Your task to perform on an android device: change keyboard looks Image 0: 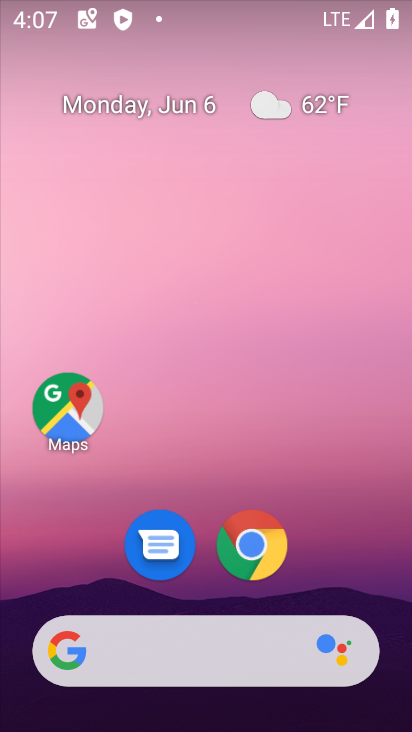
Step 0: drag from (215, 729) to (200, 123)
Your task to perform on an android device: change keyboard looks Image 1: 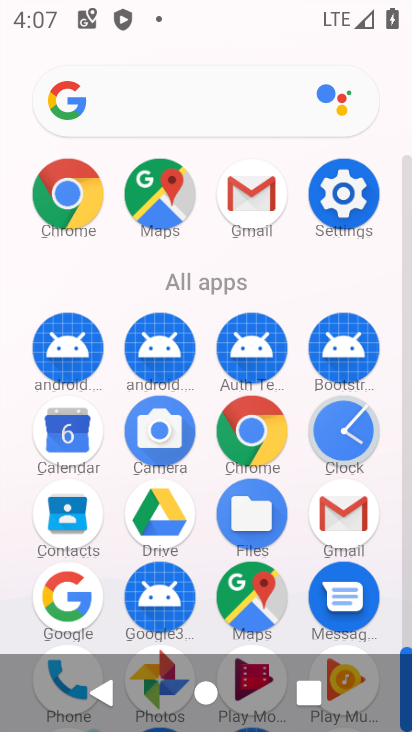
Step 1: click (337, 195)
Your task to perform on an android device: change keyboard looks Image 2: 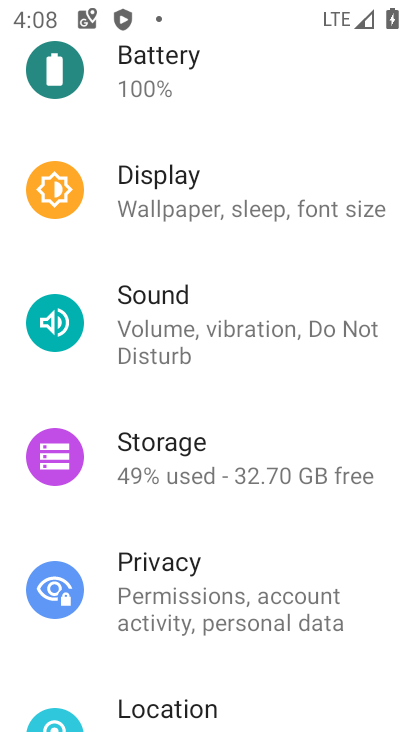
Step 2: drag from (175, 661) to (175, 230)
Your task to perform on an android device: change keyboard looks Image 3: 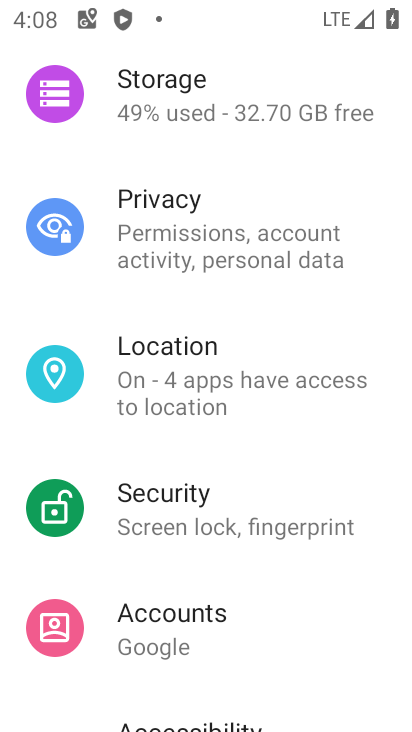
Step 3: drag from (189, 682) to (176, 197)
Your task to perform on an android device: change keyboard looks Image 4: 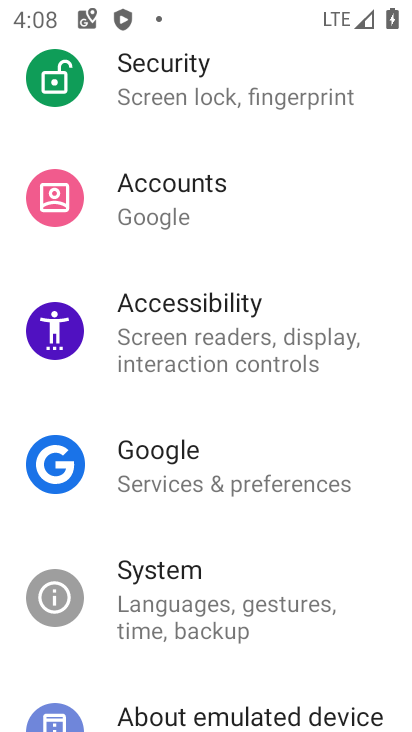
Step 4: drag from (160, 685) to (154, 195)
Your task to perform on an android device: change keyboard looks Image 5: 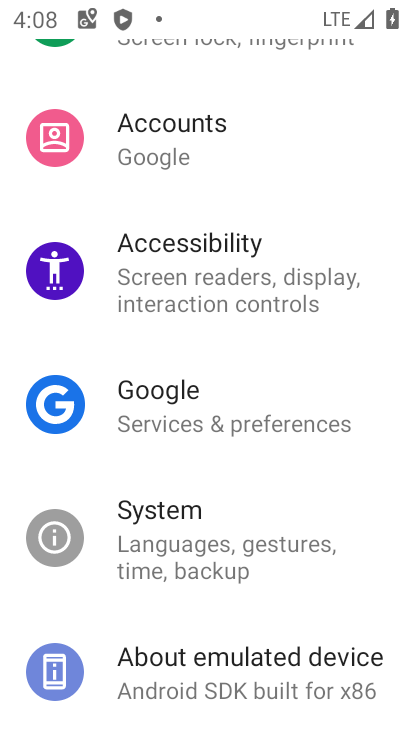
Step 5: drag from (193, 646) to (184, 218)
Your task to perform on an android device: change keyboard looks Image 6: 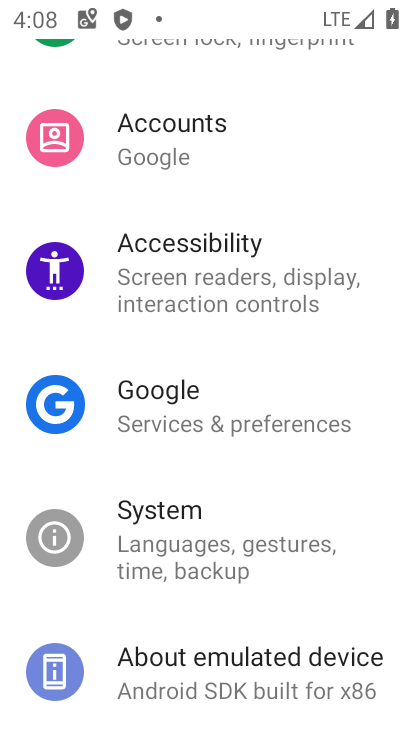
Step 6: click (171, 551)
Your task to perform on an android device: change keyboard looks Image 7: 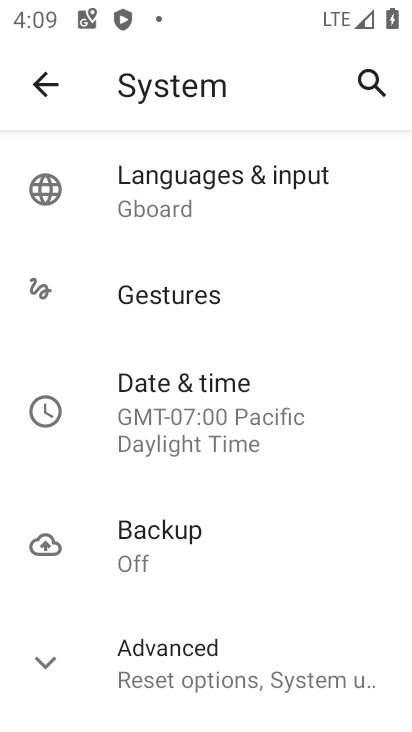
Step 7: click (156, 196)
Your task to perform on an android device: change keyboard looks Image 8: 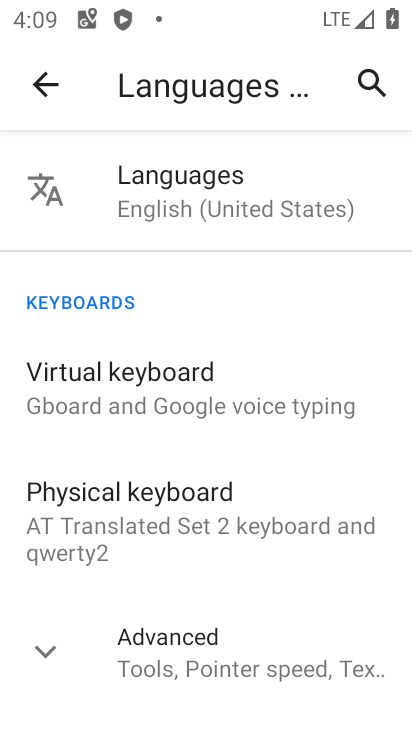
Step 8: click (168, 400)
Your task to perform on an android device: change keyboard looks Image 9: 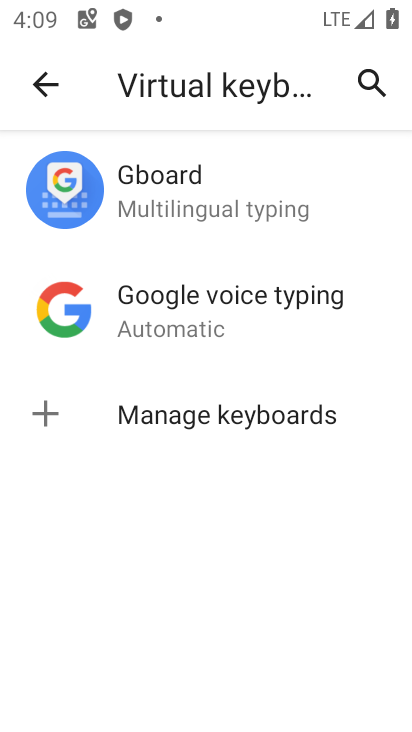
Step 9: click (174, 188)
Your task to perform on an android device: change keyboard looks Image 10: 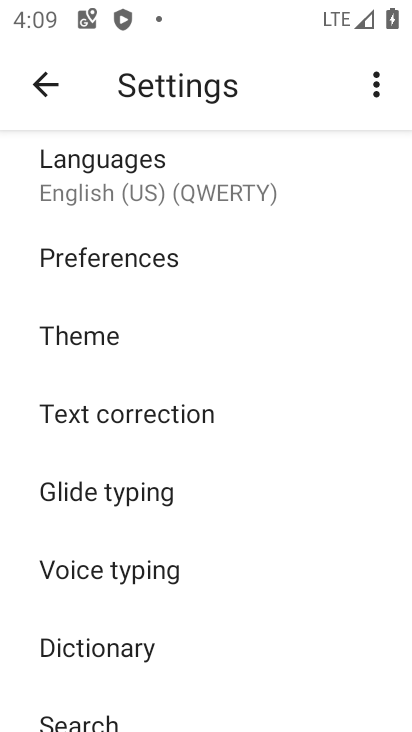
Step 10: click (71, 327)
Your task to perform on an android device: change keyboard looks Image 11: 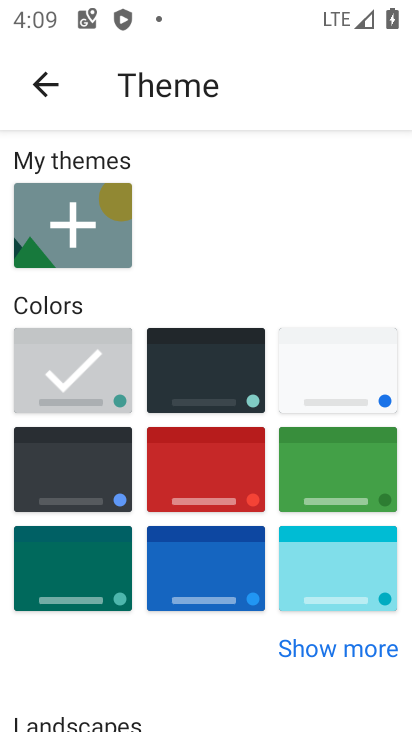
Step 11: click (236, 367)
Your task to perform on an android device: change keyboard looks Image 12: 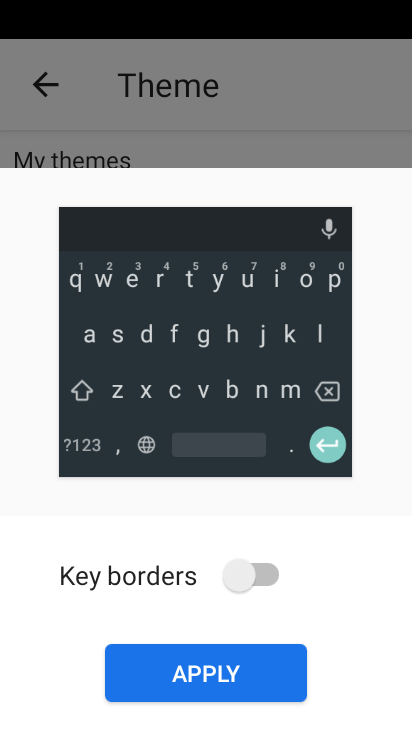
Step 12: click (263, 575)
Your task to perform on an android device: change keyboard looks Image 13: 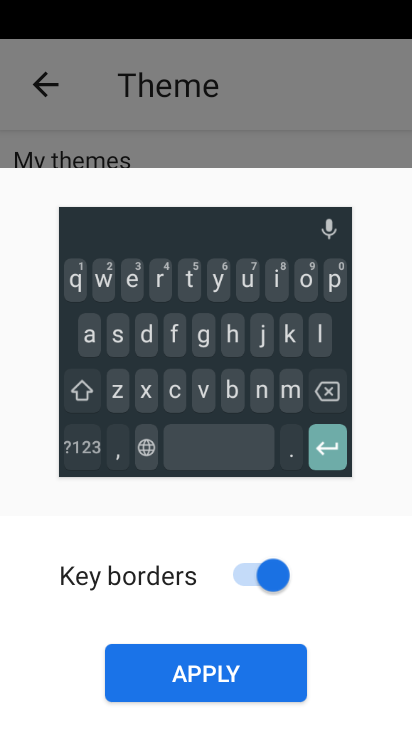
Step 13: click (234, 675)
Your task to perform on an android device: change keyboard looks Image 14: 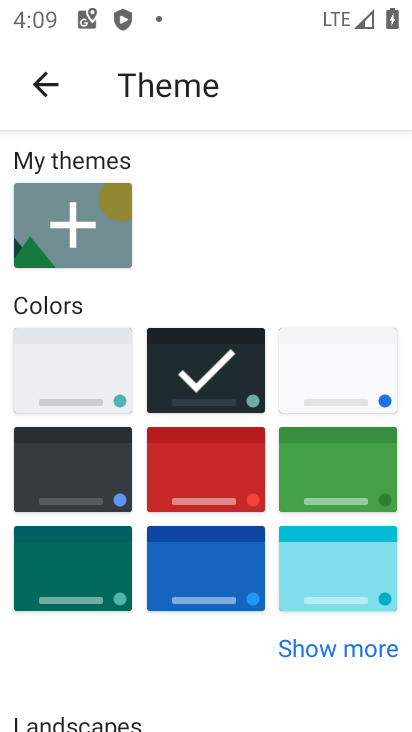
Step 14: task complete